Your task to perform on an android device: Open Youtube and go to the subscriptions tab Image 0: 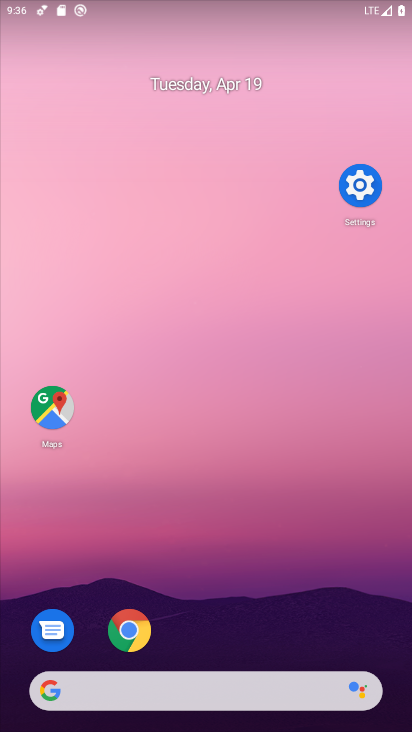
Step 0: drag from (273, 639) to (295, 140)
Your task to perform on an android device: Open Youtube and go to the subscriptions tab Image 1: 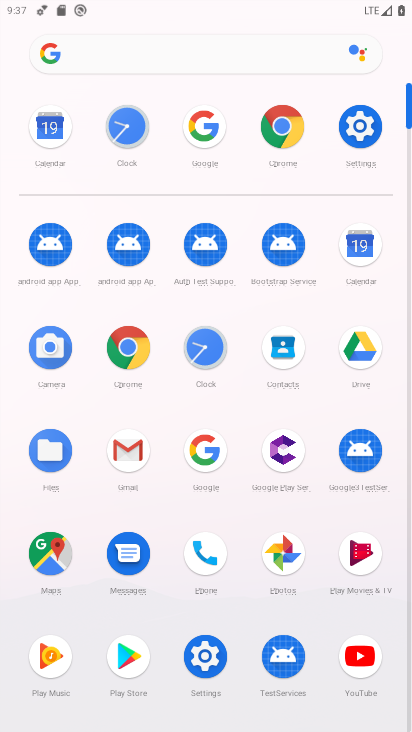
Step 1: click (358, 661)
Your task to perform on an android device: Open Youtube and go to the subscriptions tab Image 2: 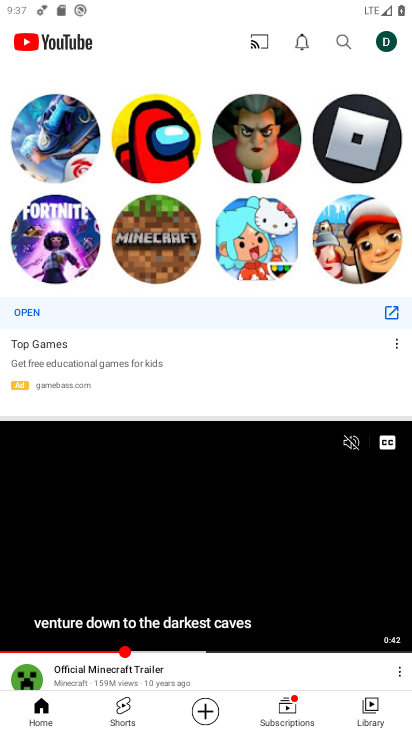
Step 2: click (297, 721)
Your task to perform on an android device: Open Youtube and go to the subscriptions tab Image 3: 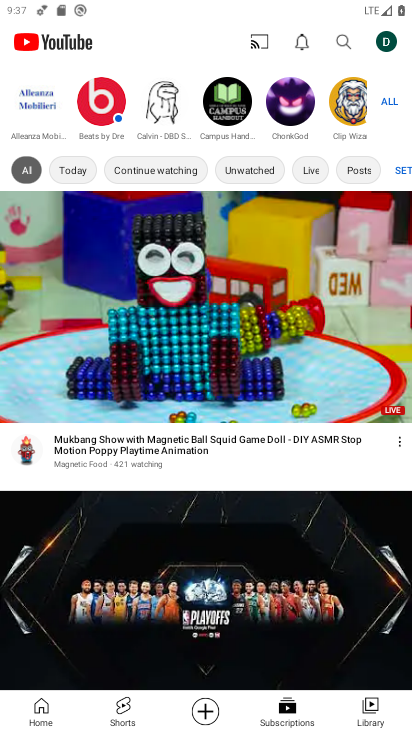
Step 3: task complete